Your task to perform on an android device: turn vacation reply on in the gmail app Image 0: 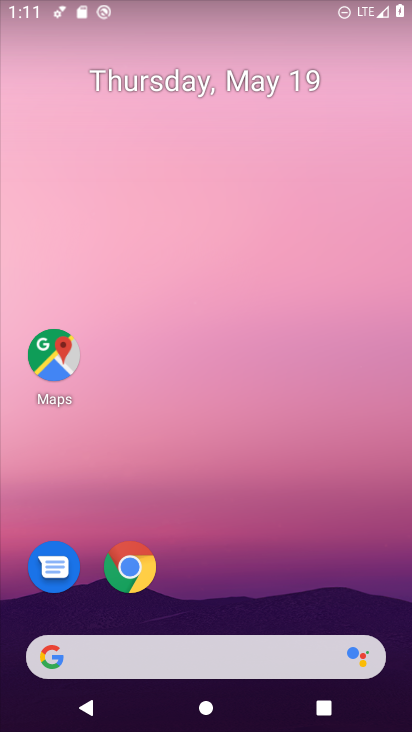
Step 0: drag from (291, 552) to (263, 2)
Your task to perform on an android device: turn vacation reply on in the gmail app Image 1: 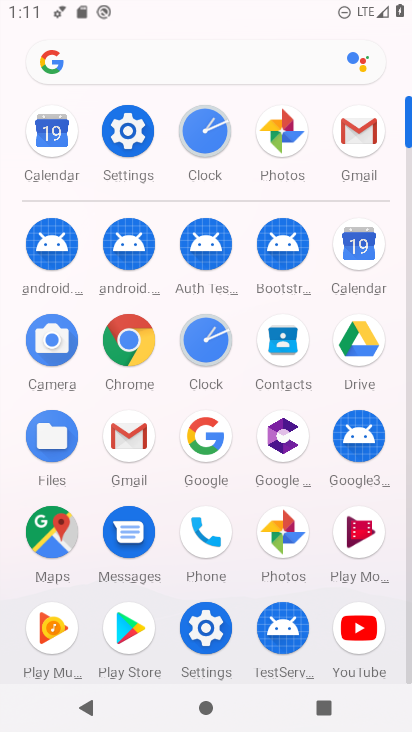
Step 1: click (346, 141)
Your task to perform on an android device: turn vacation reply on in the gmail app Image 2: 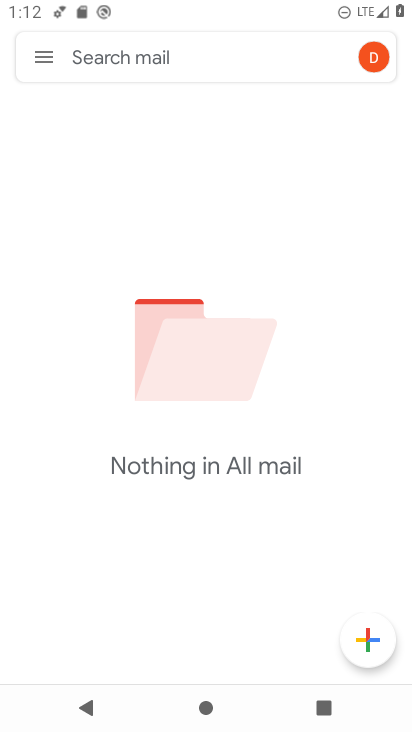
Step 2: click (49, 52)
Your task to perform on an android device: turn vacation reply on in the gmail app Image 3: 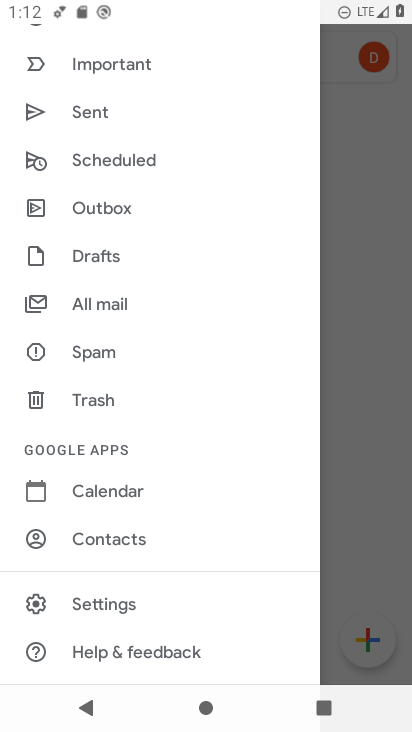
Step 3: click (154, 609)
Your task to perform on an android device: turn vacation reply on in the gmail app Image 4: 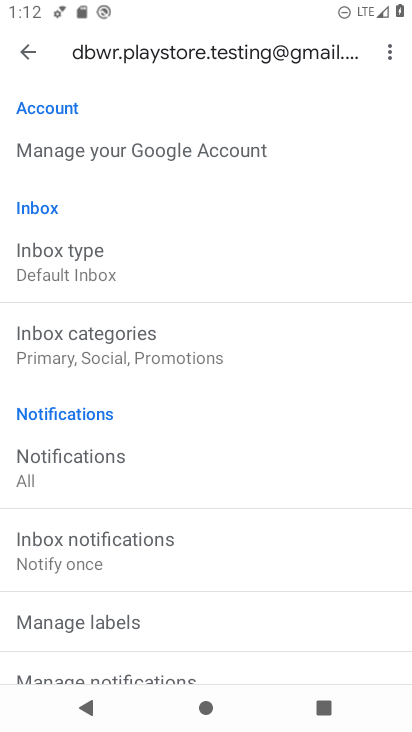
Step 4: drag from (272, 504) to (244, 46)
Your task to perform on an android device: turn vacation reply on in the gmail app Image 5: 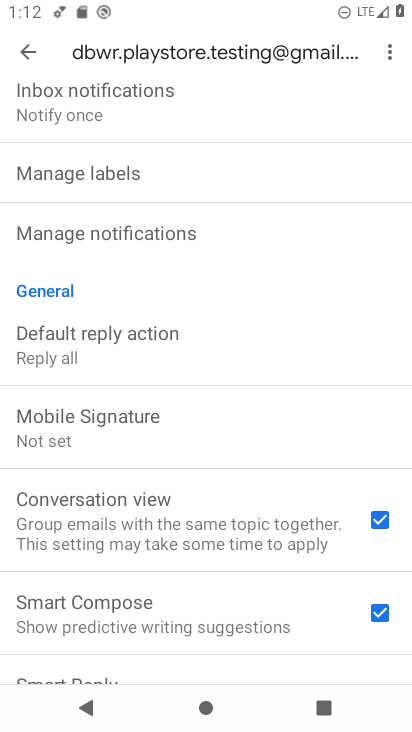
Step 5: drag from (328, 427) to (274, 87)
Your task to perform on an android device: turn vacation reply on in the gmail app Image 6: 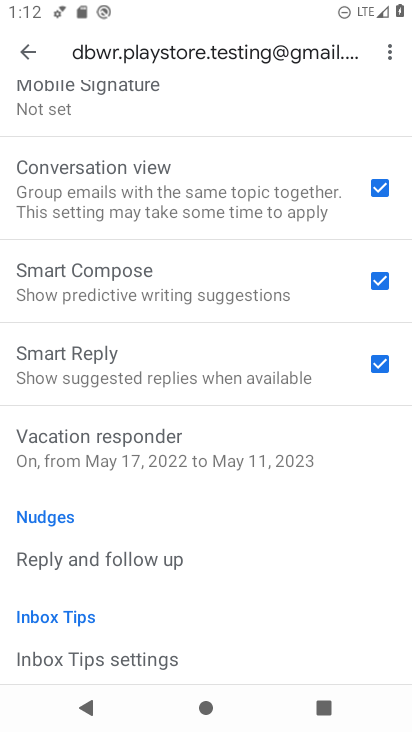
Step 6: click (247, 448)
Your task to perform on an android device: turn vacation reply on in the gmail app Image 7: 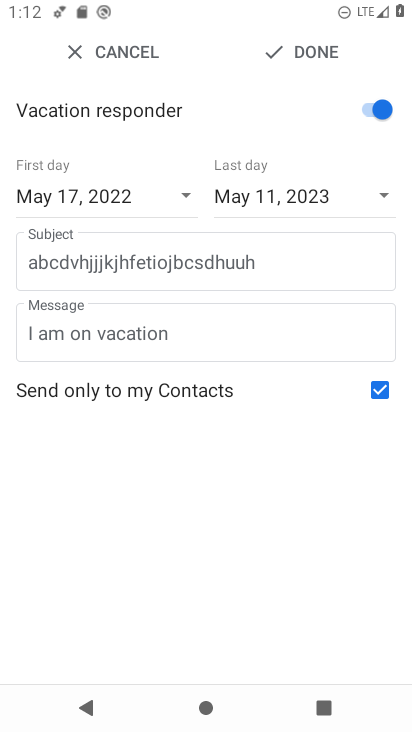
Step 7: task complete